Your task to perform on an android device: turn smart compose on in the gmail app Image 0: 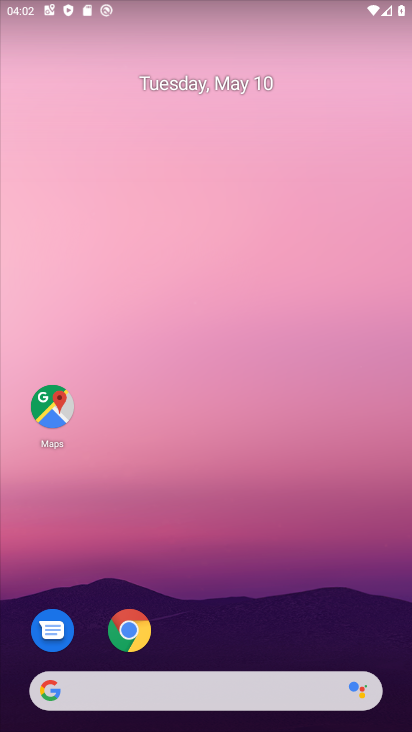
Step 0: drag from (190, 595) to (170, 413)
Your task to perform on an android device: turn smart compose on in the gmail app Image 1: 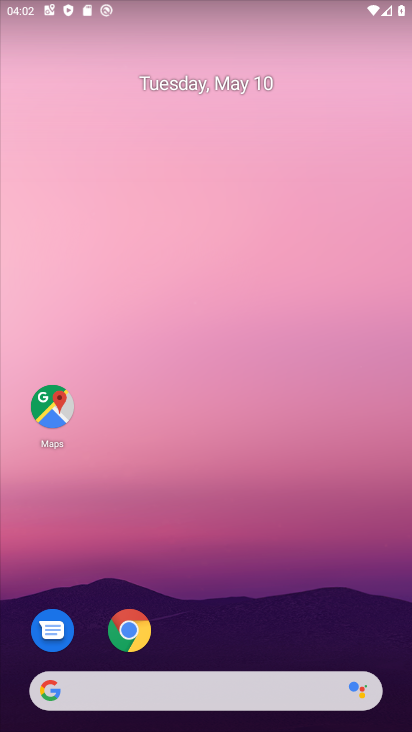
Step 1: drag from (268, 656) to (267, 566)
Your task to perform on an android device: turn smart compose on in the gmail app Image 2: 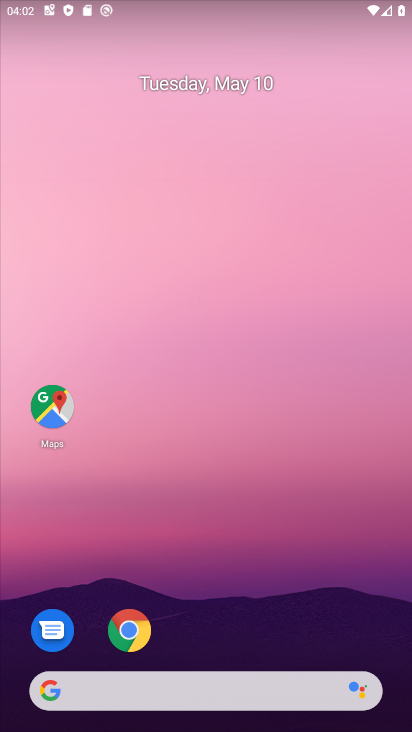
Step 2: drag from (210, 637) to (296, 5)
Your task to perform on an android device: turn smart compose on in the gmail app Image 3: 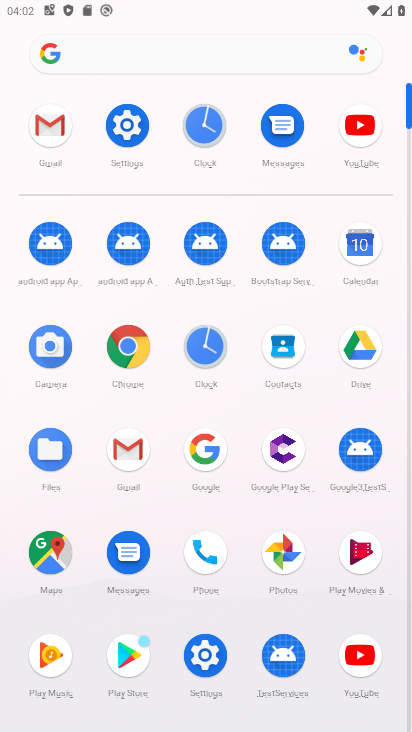
Step 3: click (61, 163)
Your task to perform on an android device: turn smart compose on in the gmail app Image 4: 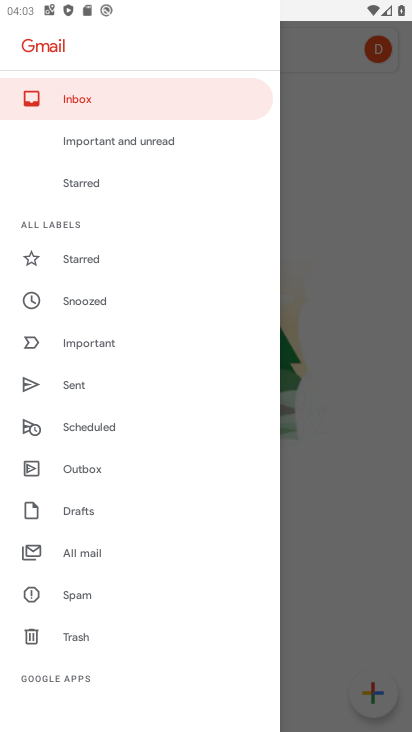
Step 4: drag from (108, 686) to (158, 154)
Your task to perform on an android device: turn smart compose on in the gmail app Image 5: 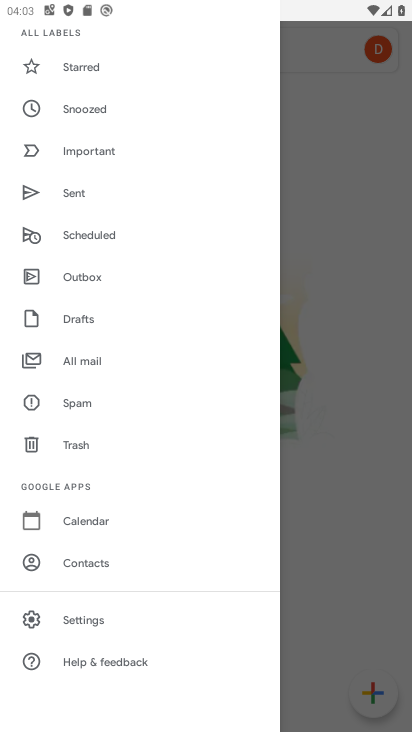
Step 5: click (65, 626)
Your task to perform on an android device: turn smart compose on in the gmail app Image 6: 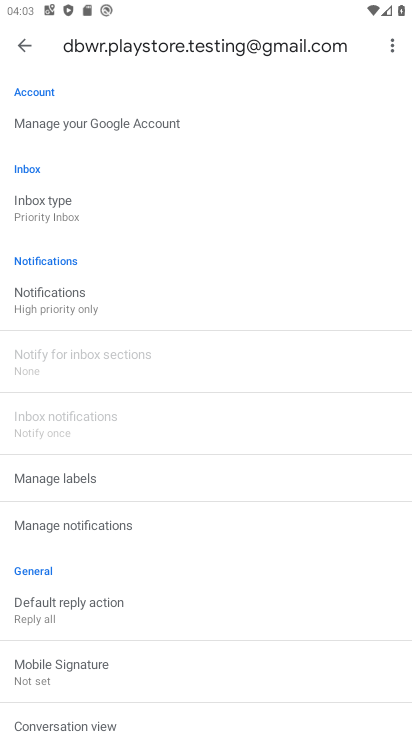
Step 6: task complete